Your task to perform on an android device: check google app version Image 0: 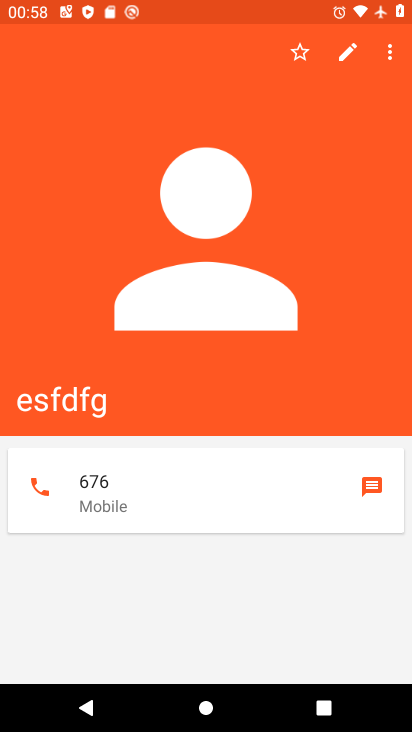
Step 0: press home button
Your task to perform on an android device: check google app version Image 1: 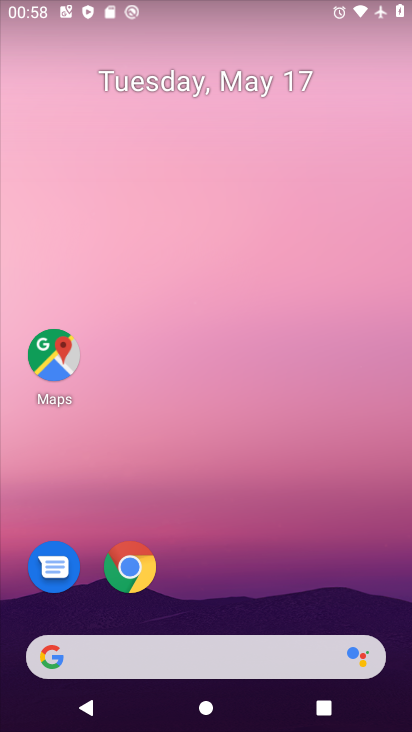
Step 1: drag from (280, 535) to (201, 135)
Your task to perform on an android device: check google app version Image 2: 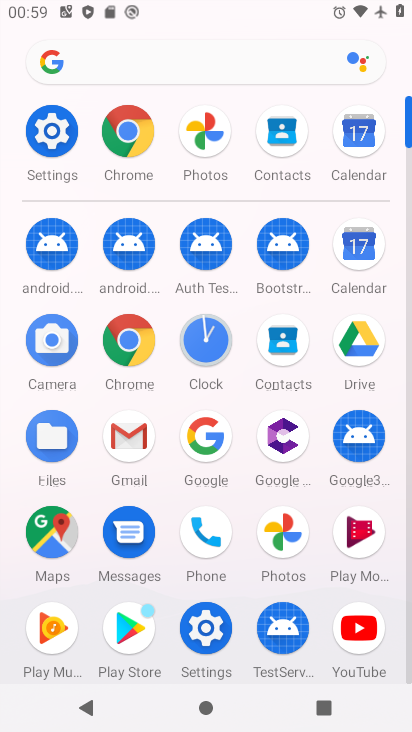
Step 2: click (207, 438)
Your task to perform on an android device: check google app version Image 3: 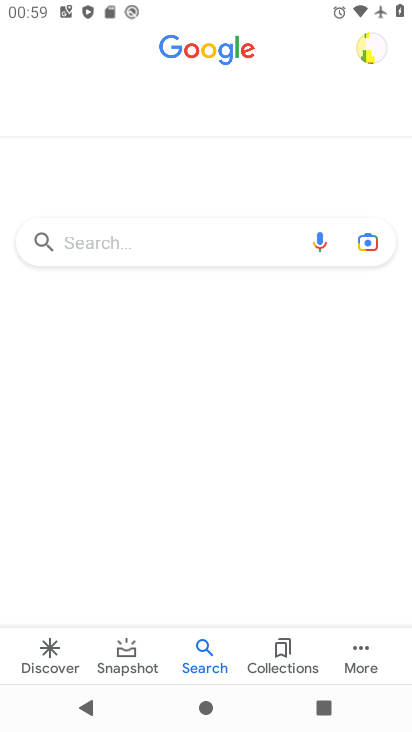
Step 3: click (359, 651)
Your task to perform on an android device: check google app version Image 4: 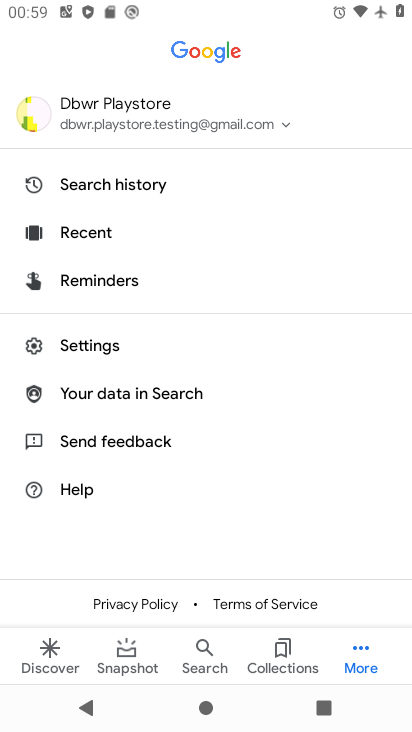
Step 4: click (86, 343)
Your task to perform on an android device: check google app version Image 5: 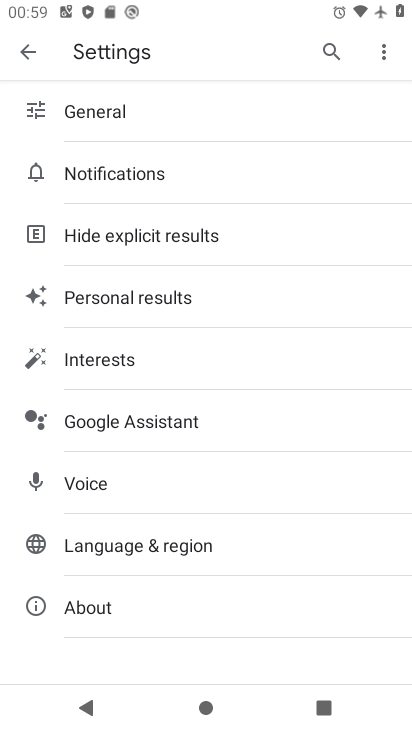
Step 5: click (87, 601)
Your task to perform on an android device: check google app version Image 6: 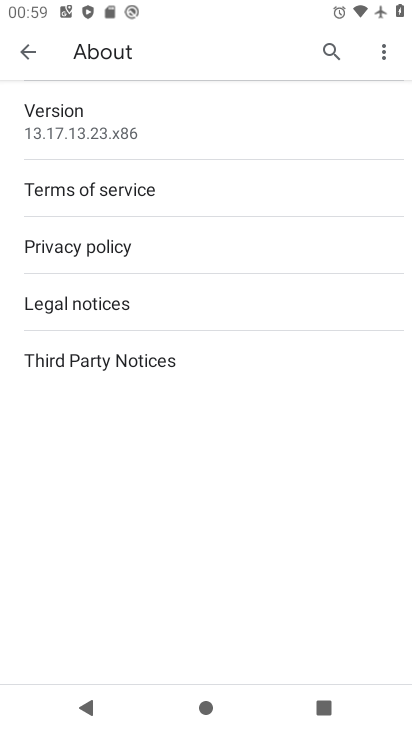
Step 6: task complete